Your task to perform on an android device: Go to wifi settings Image 0: 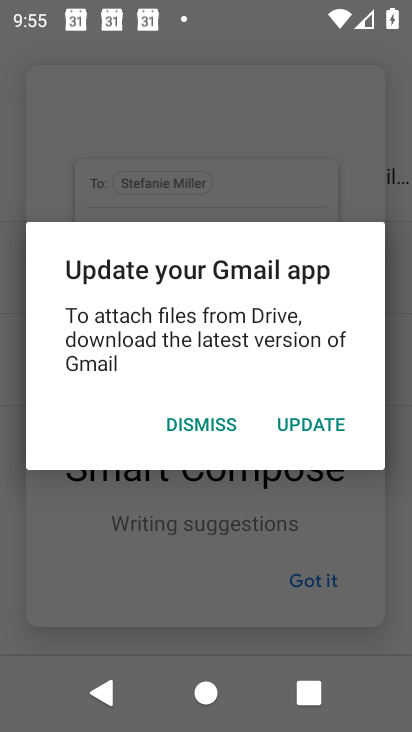
Step 0: press home button
Your task to perform on an android device: Go to wifi settings Image 1: 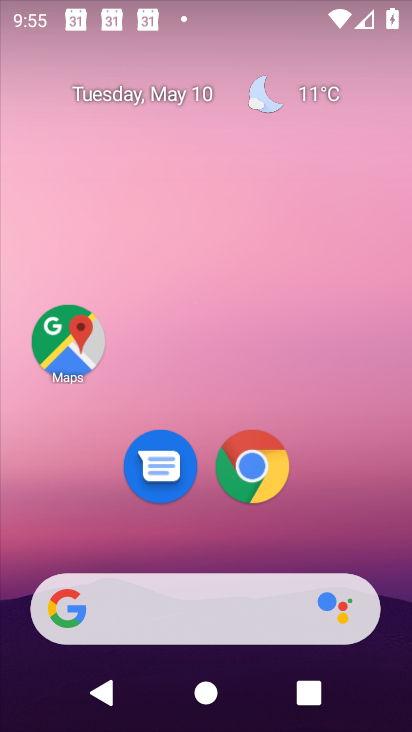
Step 1: drag from (312, 449) to (324, 57)
Your task to perform on an android device: Go to wifi settings Image 2: 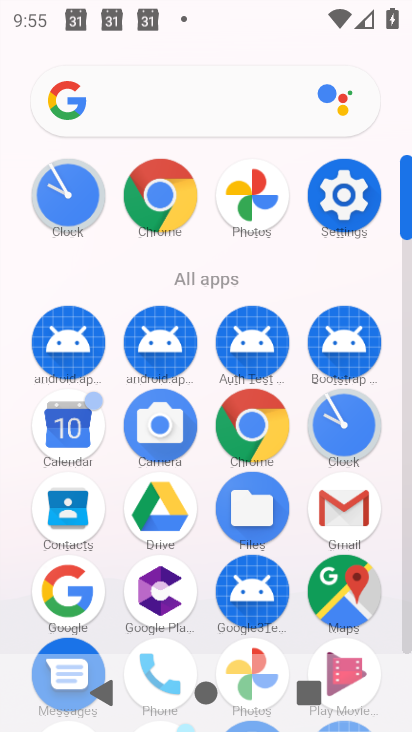
Step 2: click (345, 185)
Your task to perform on an android device: Go to wifi settings Image 3: 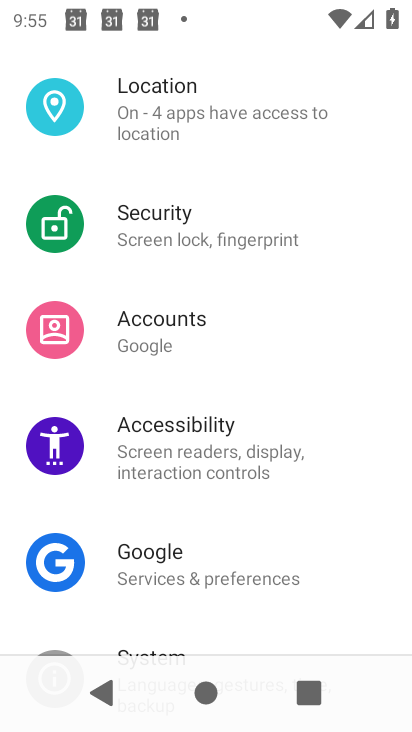
Step 3: drag from (279, 155) to (238, 649)
Your task to perform on an android device: Go to wifi settings Image 4: 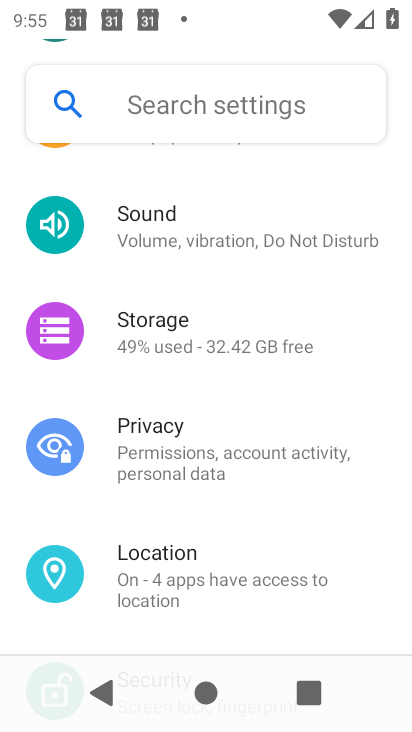
Step 4: drag from (283, 222) to (296, 663)
Your task to perform on an android device: Go to wifi settings Image 5: 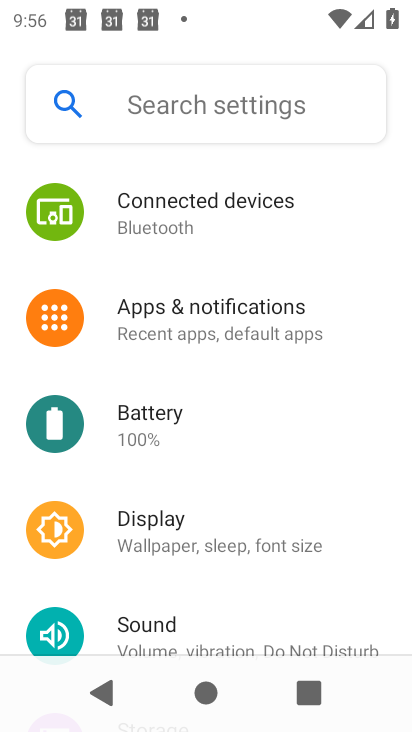
Step 5: drag from (252, 220) to (230, 648)
Your task to perform on an android device: Go to wifi settings Image 6: 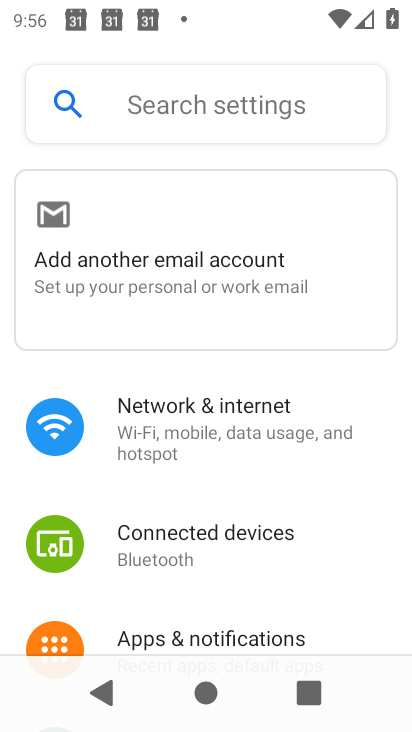
Step 6: click (177, 412)
Your task to perform on an android device: Go to wifi settings Image 7: 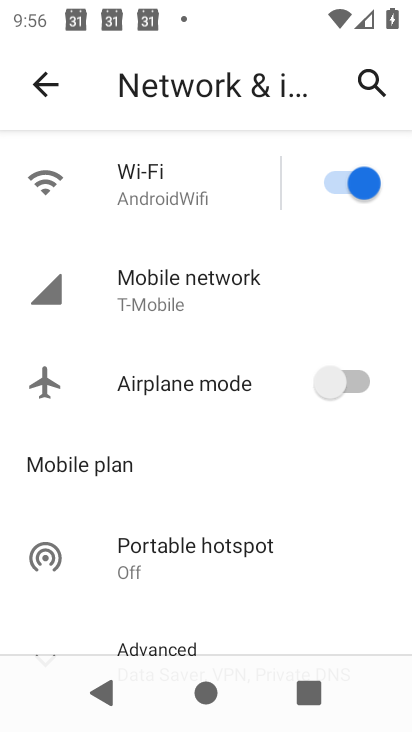
Step 7: click (190, 181)
Your task to perform on an android device: Go to wifi settings Image 8: 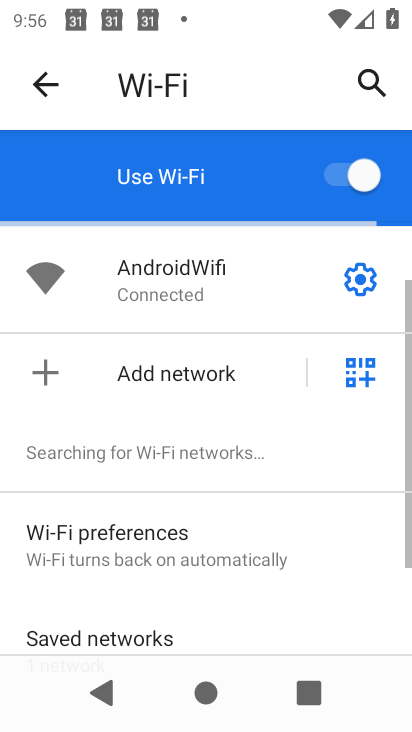
Step 8: click (375, 288)
Your task to perform on an android device: Go to wifi settings Image 9: 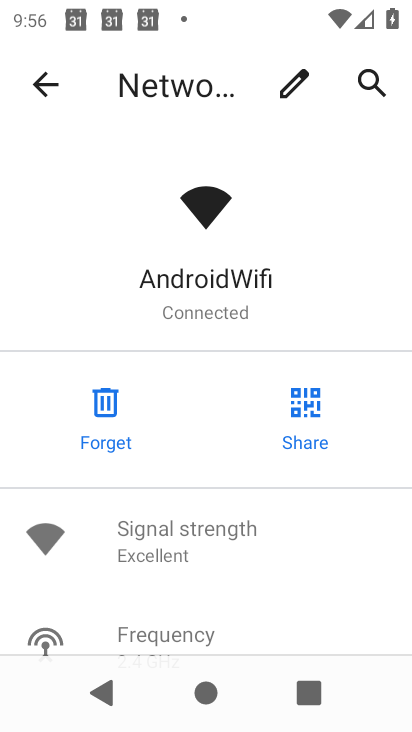
Step 9: task complete